Your task to perform on an android device: open device folders in google photos Image 0: 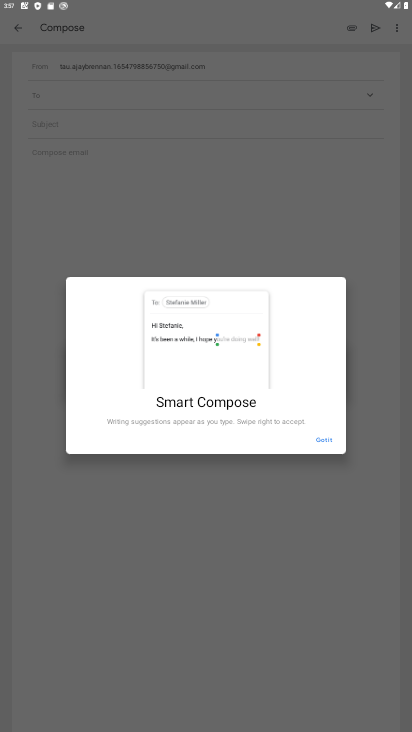
Step 0: press home button
Your task to perform on an android device: open device folders in google photos Image 1: 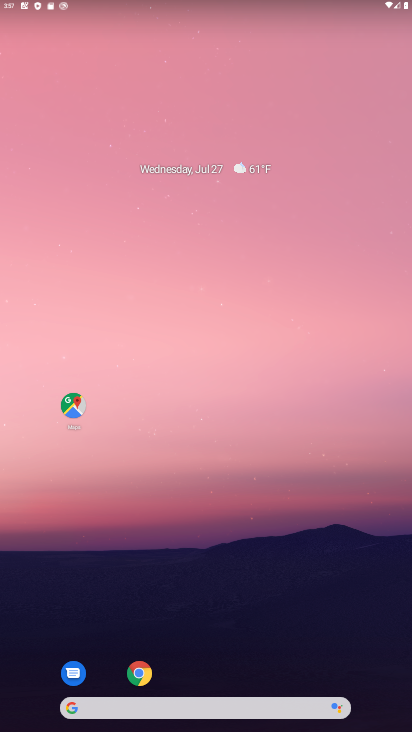
Step 1: drag from (283, 625) to (131, 32)
Your task to perform on an android device: open device folders in google photos Image 2: 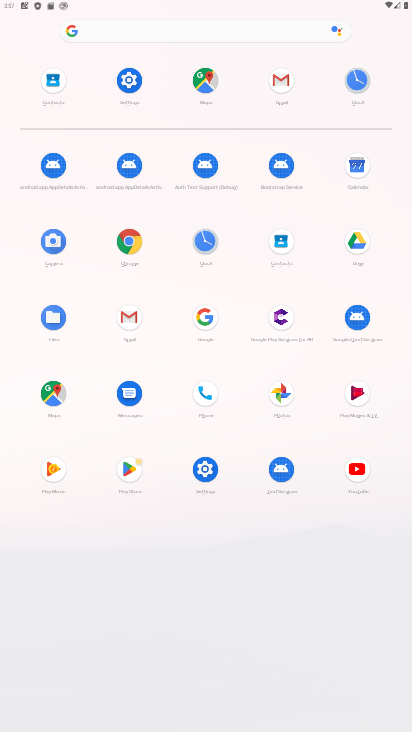
Step 2: click (277, 395)
Your task to perform on an android device: open device folders in google photos Image 3: 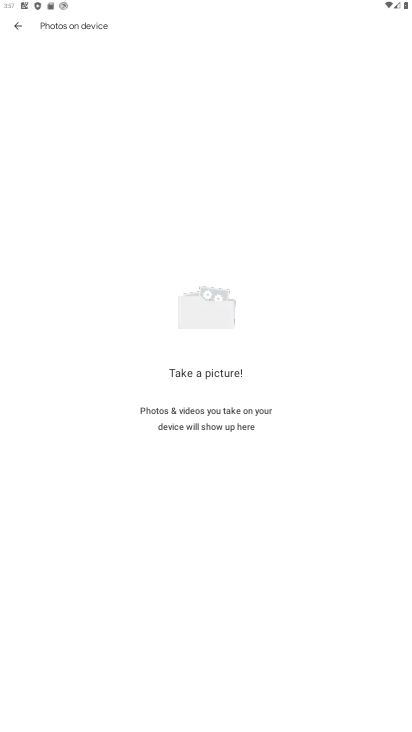
Step 3: click (20, 22)
Your task to perform on an android device: open device folders in google photos Image 4: 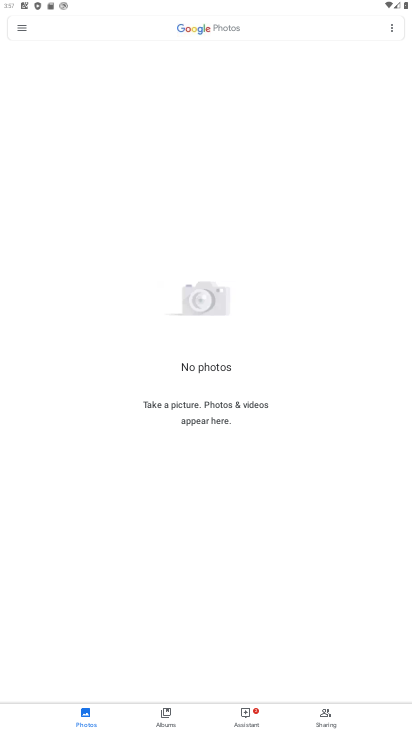
Step 4: click (20, 22)
Your task to perform on an android device: open device folders in google photos Image 5: 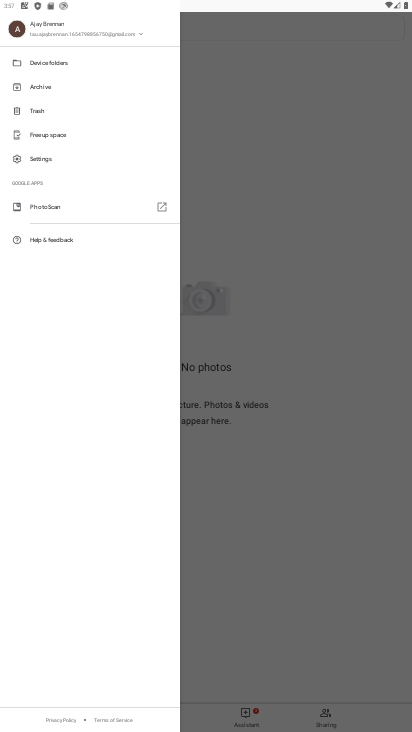
Step 5: click (49, 61)
Your task to perform on an android device: open device folders in google photos Image 6: 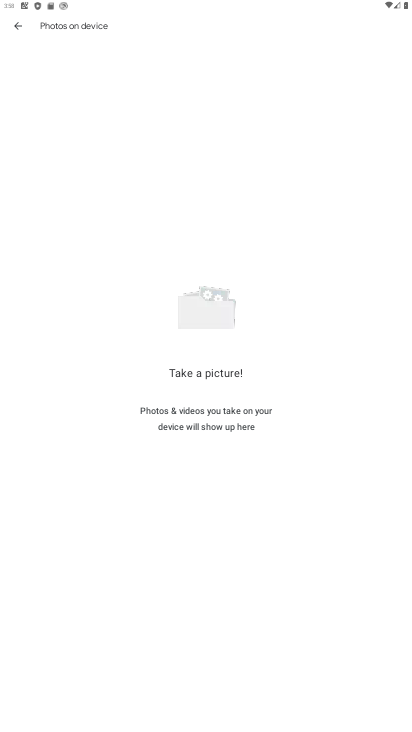
Step 6: task complete